Your task to perform on an android device: Go to accessibility settings Image 0: 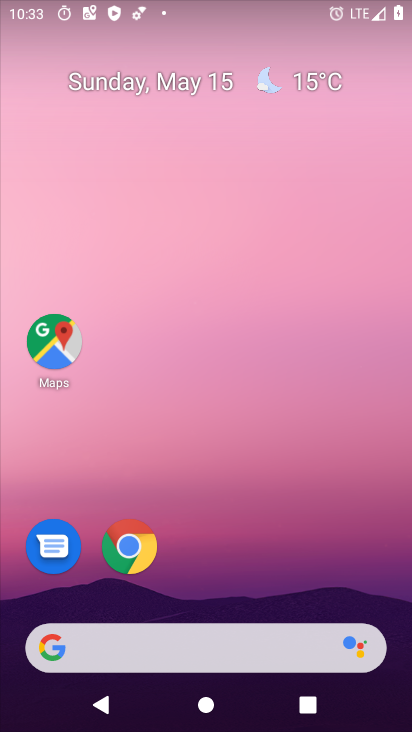
Step 0: drag from (401, 669) to (266, 234)
Your task to perform on an android device: Go to accessibility settings Image 1: 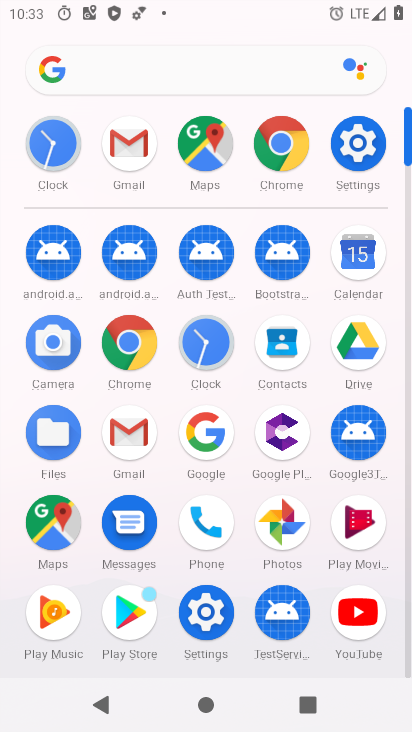
Step 1: click (348, 151)
Your task to perform on an android device: Go to accessibility settings Image 2: 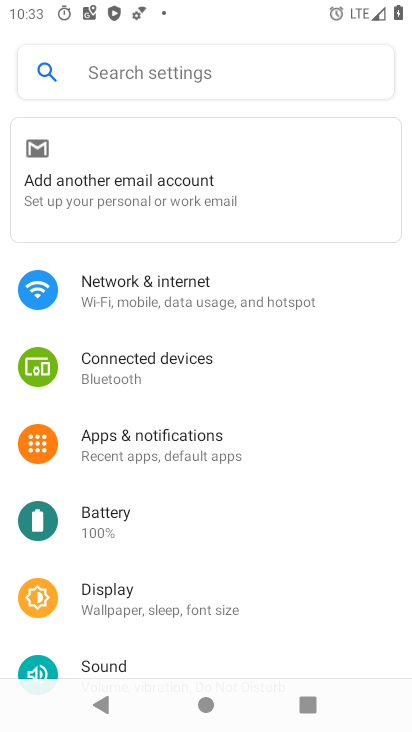
Step 2: drag from (192, 575) to (178, 214)
Your task to perform on an android device: Go to accessibility settings Image 3: 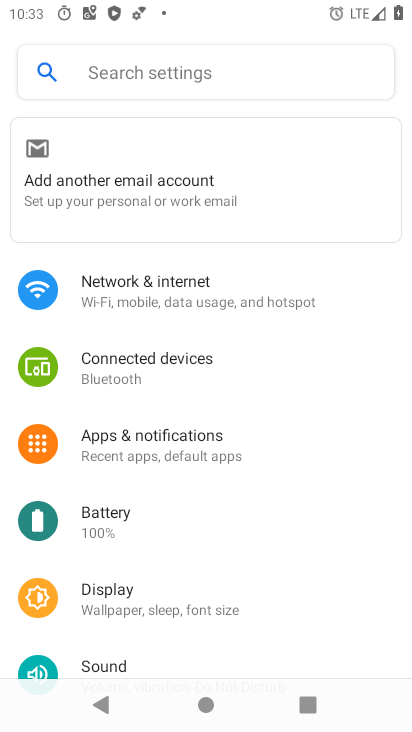
Step 3: drag from (195, 555) to (143, 129)
Your task to perform on an android device: Go to accessibility settings Image 4: 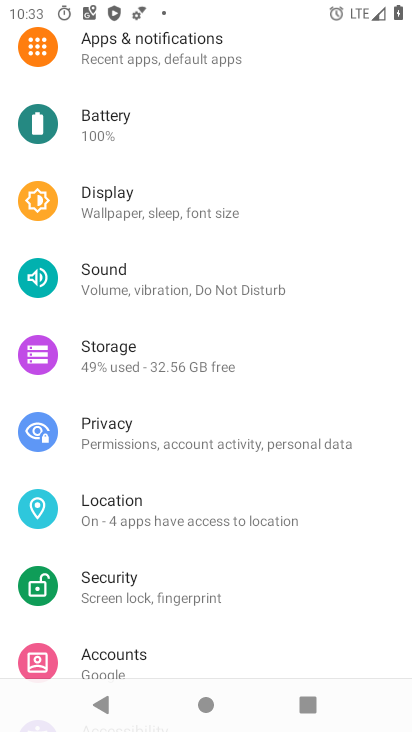
Step 4: drag from (168, 620) to (113, 258)
Your task to perform on an android device: Go to accessibility settings Image 5: 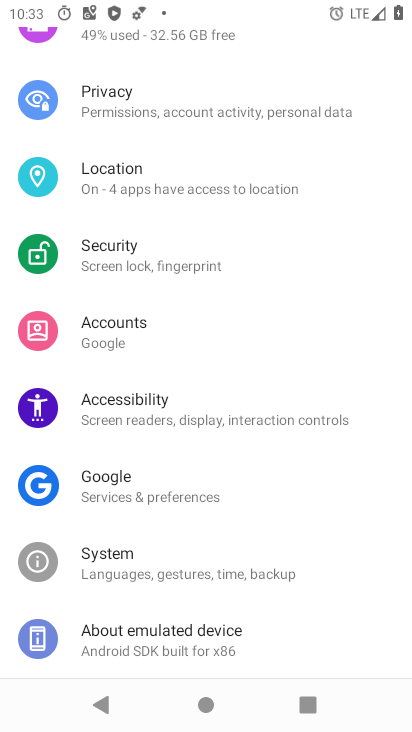
Step 5: click (112, 409)
Your task to perform on an android device: Go to accessibility settings Image 6: 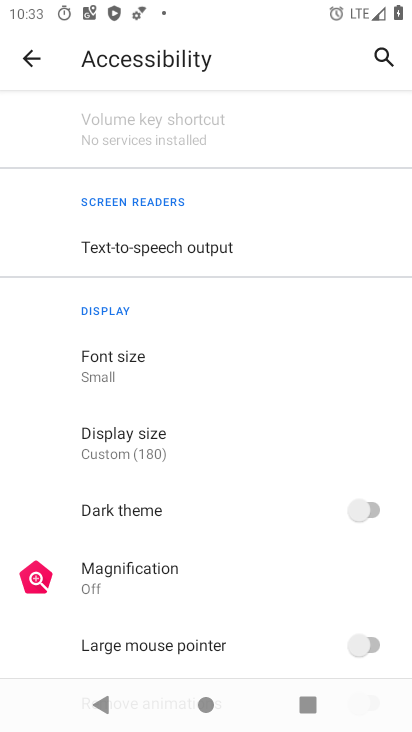
Step 6: task complete